Your task to perform on an android device: Open location settings Image 0: 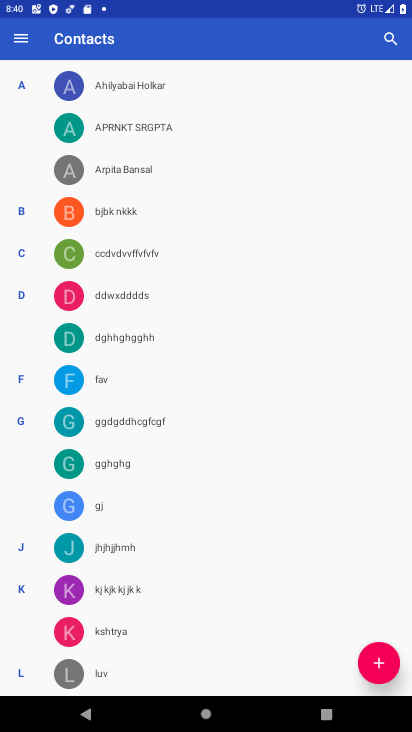
Step 0: press home button
Your task to perform on an android device: Open location settings Image 1: 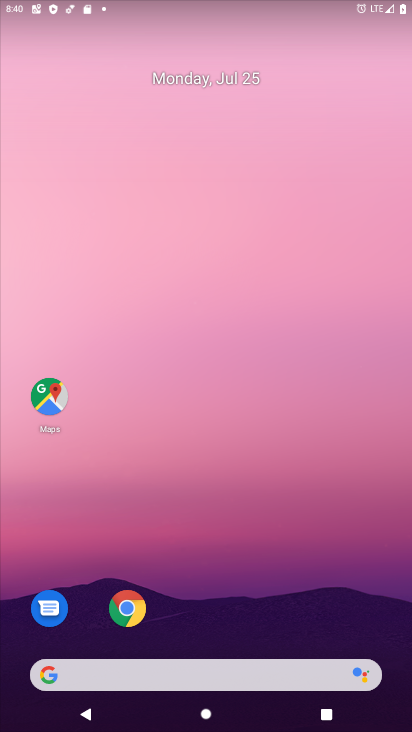
Step 1: drag from (228, 544) to (209, 35)
Your task to perform on an android device: Open location settings Image 2: 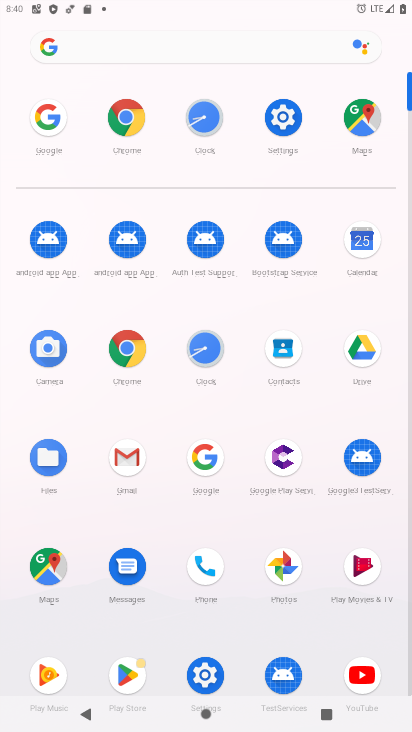
Step 2: click (292, 112)
Your task to perform on an android device: Open location settings Image 3: 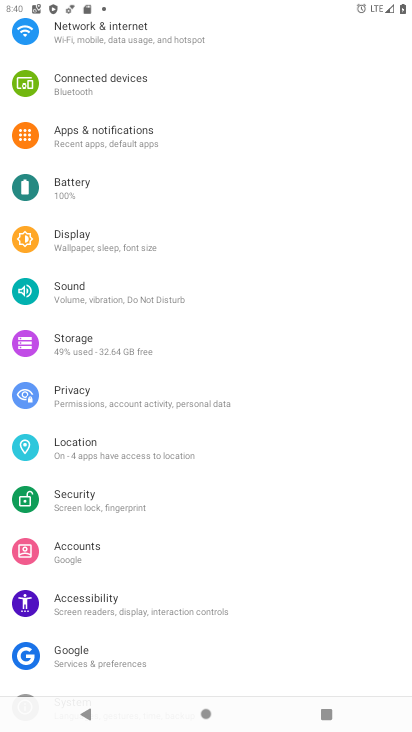
Step 3: click (84, 443)
Your task to perform on an android device: Open location settings Image 4: 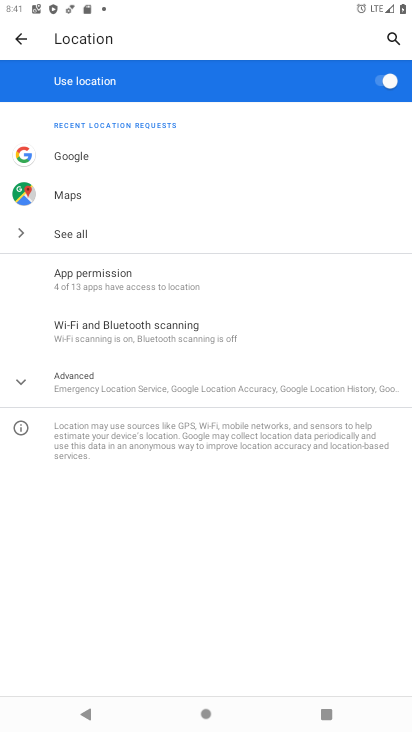
Step 4: task complete